Your task to perform on an android device: Open the calendar and show me this week's events Image 0: 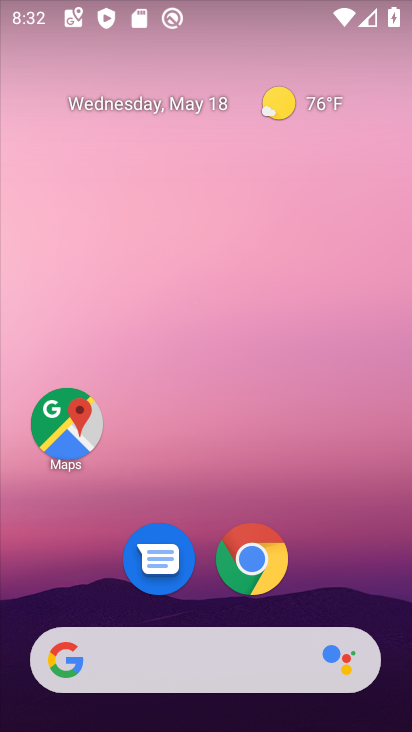
Step 0: drag from (218, 596) to (229, 47)
Your task to perform on an android device: Open the calendar and show me this week's events Image 1: 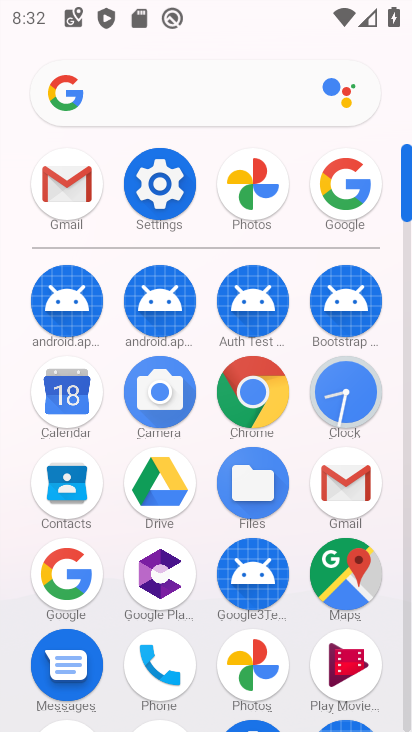
Step 1: click (71, 385)
Your task to perform on an android device: Open the calendar and show me this week's events Image 2: 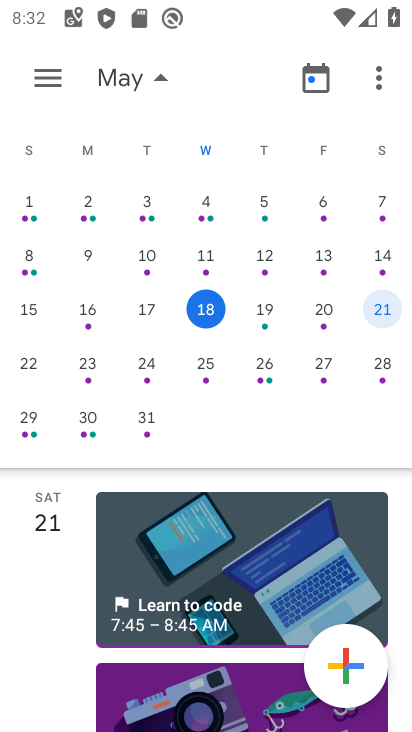
Step 2: click (328, 308)
Your task to perform on an android device: Open the calendar and show me this week's events Image 3: 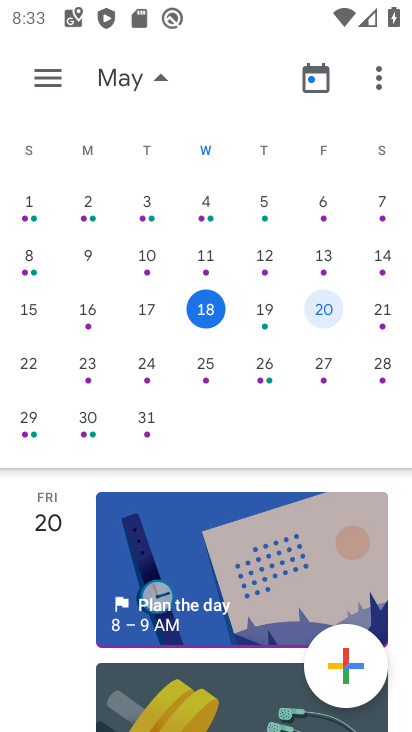
Step 3: task complete